Your task to perform on an android device: clear history in the chrome app Image 0: 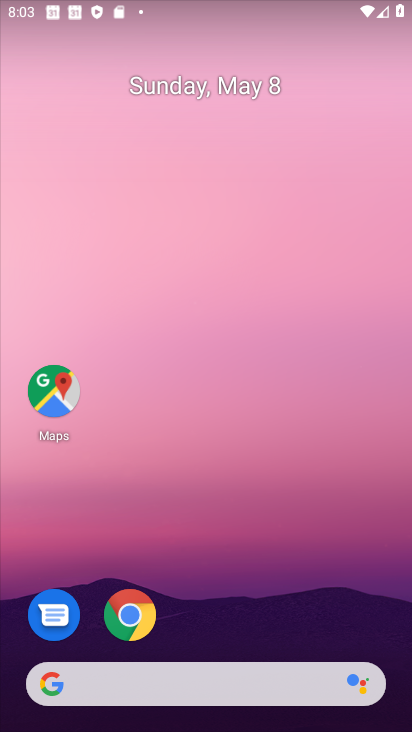
Step 0: drag from (241, 637) to (43, 335)
Your task to perform on an android device: clear history in the chrome app Image 1: 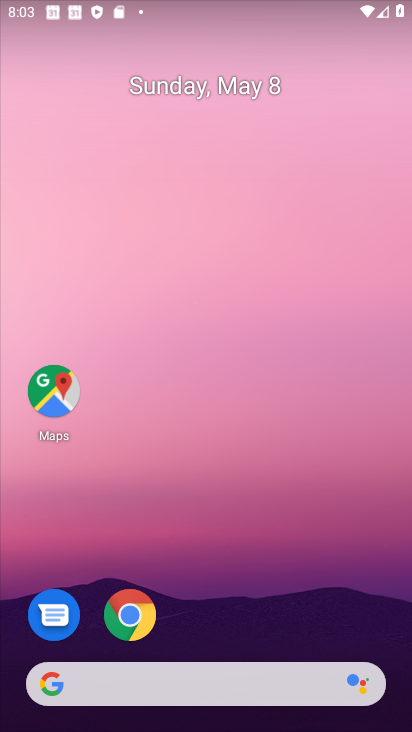
Step 1: drag from (259, 625) to (287, 7)
Your task to perform on an android device: clear history in the chrome app Image 2: 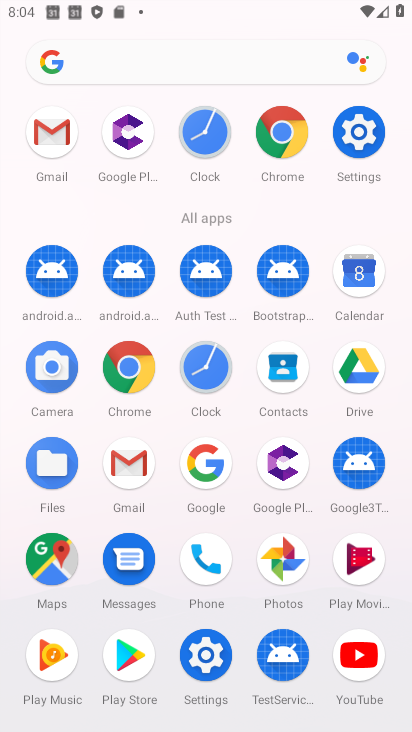
Step 2: click (289, 133)
Your task to perform on an android device: clear history in the chrome app Image 3: 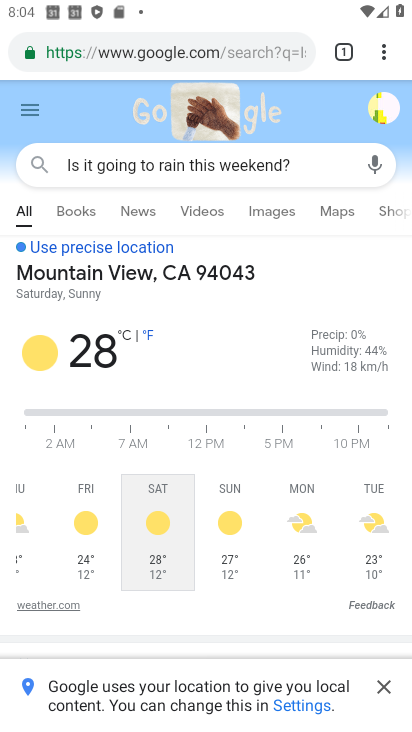
Step 3: drag from (394, 57) to (261, 302)
Your task to perform on an android device: clear history in the chrome app Image 4: 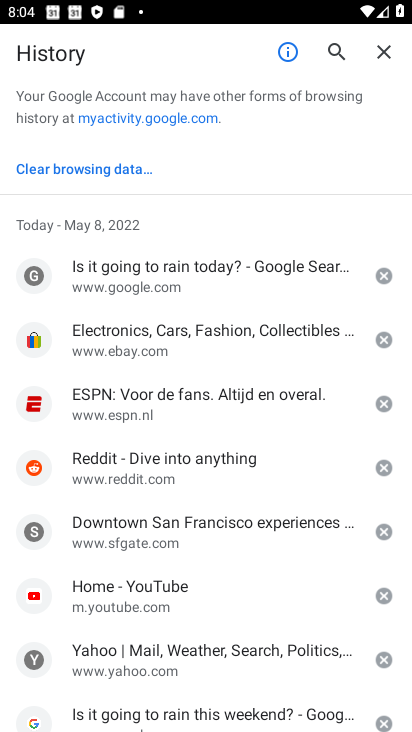
Step 4: click (62, 168)
Your task to perform on an android device: clear history in the chrome app Image 5: 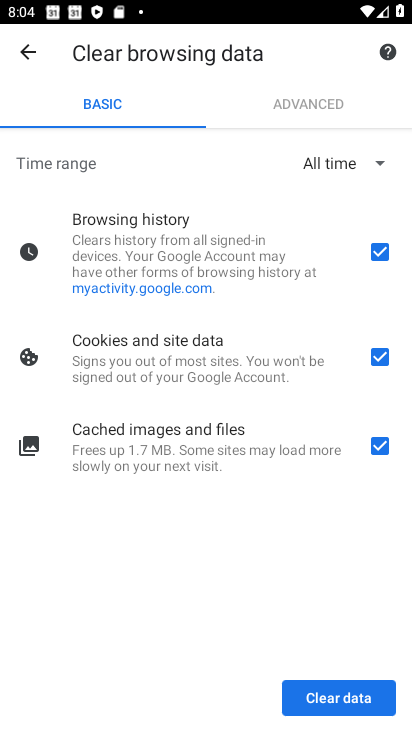
Step 5: click (379, 454)
Your task to perform on an android device: clear history in the chrome app Image 6: 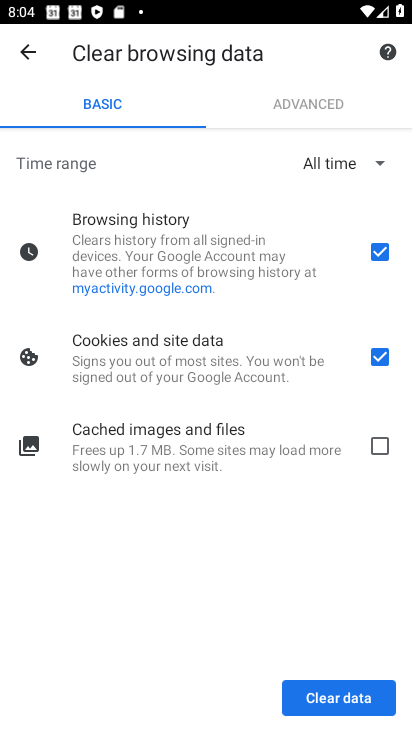
Step 6: click (383, 354)
Your task to perform on an android device: clear history in the chrome app Image 7: 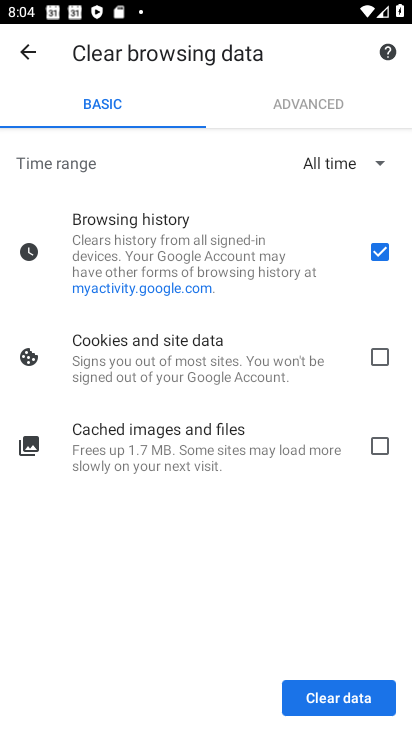
Step 7: click (375, 690)
Your task to perform on an android device: clear history in the chrome app Image 8: 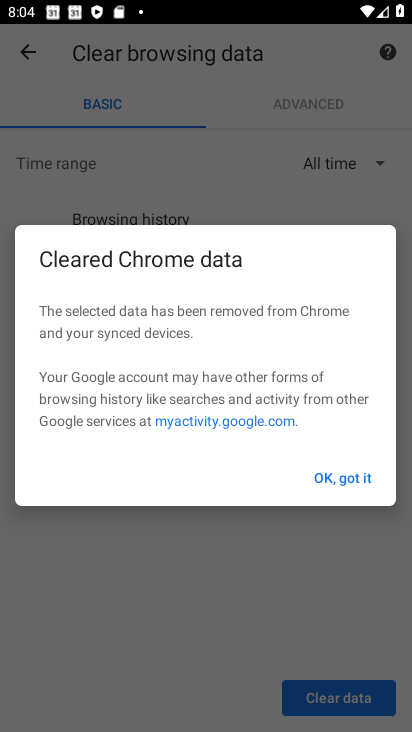
Step 8: click (350, 486)
Your task to perform on an android device: clear history in the chrome app Image 9: 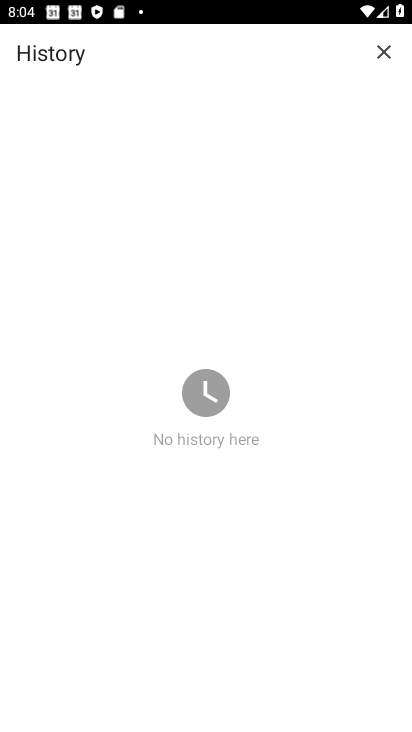
Step 9: task complete